Your task to perform on an android device: turn on sleep mode Image 0: 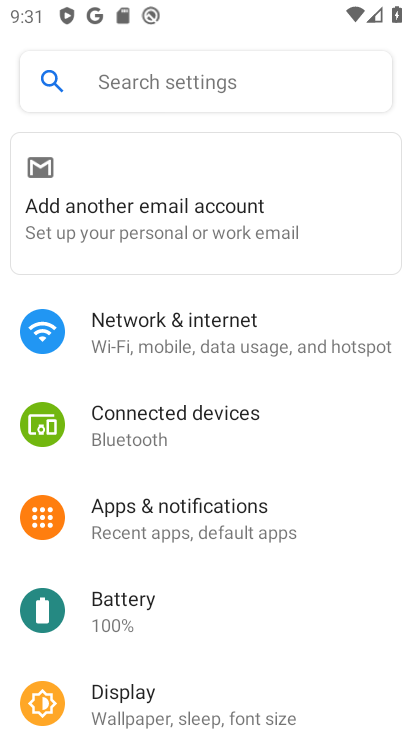
Step 0: drag from (224, 606) to (194, 275)
Your task to perform on an android device: turn on sleep mode Image 1: 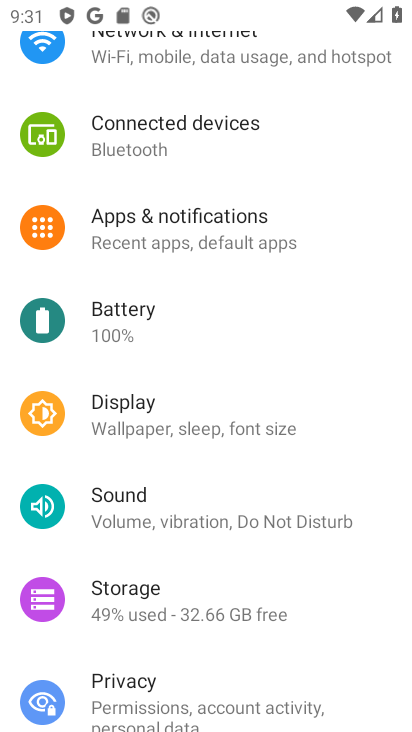
Step 1: click (200, 493)
Your task to perform on an android device: turn on sleep mode Image 2: 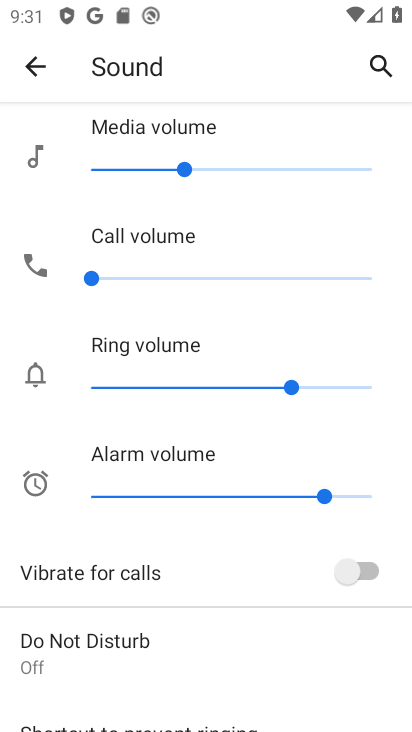
Step 2: press home button
Your task to perform on an android device: turn on sleep mode Image 3: 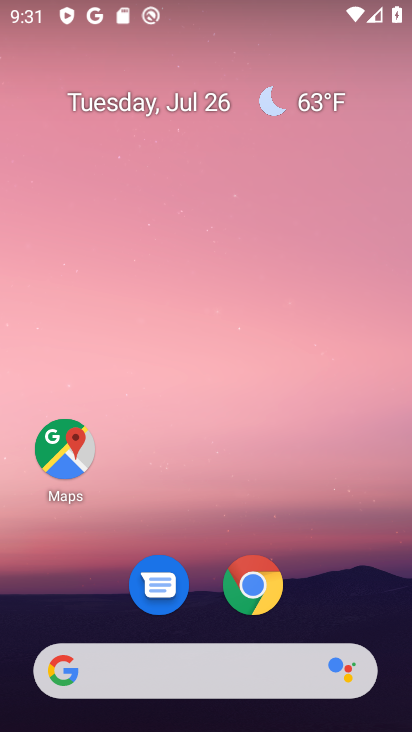
Step 3: drag from (330, 493) to (331, 56)
Your task to perform on an android device: turn on sleep mode Image 4: 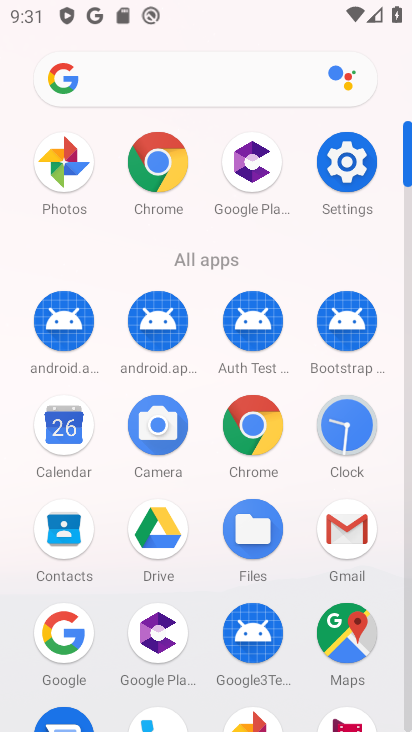
Step 4: click (339, 158)
Your task to perform on an android device: turn on sleep mode Image 5: 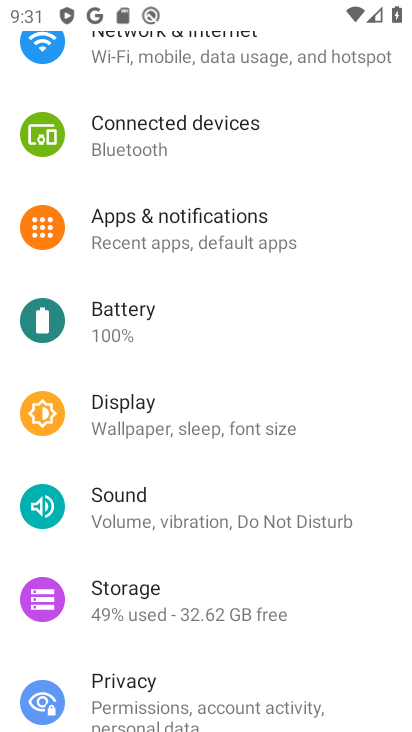
Step 5: drag from (186, 183) to (236, 522)
Your task to perform on an android device: turn on sleep mode Image 6: 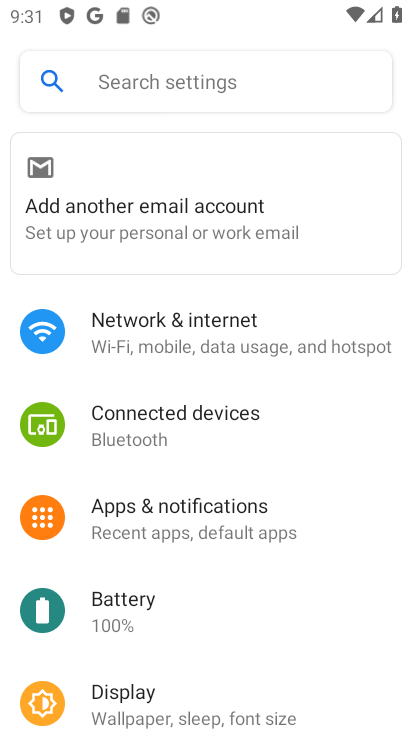
Step 6: click (225, 325)
Your task to perform on an android device: turn on sleep mode Image 7: 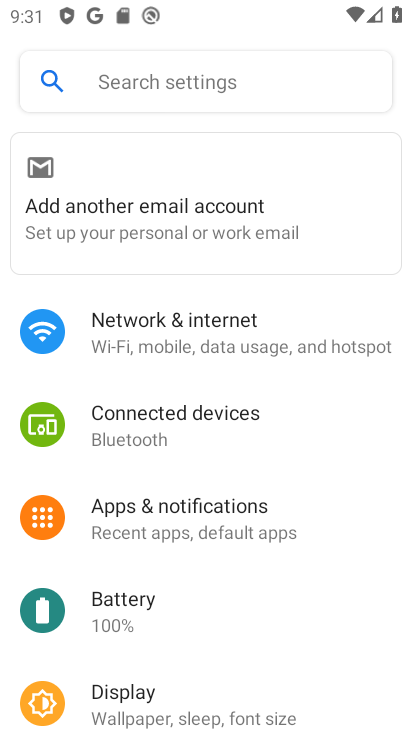
Step 7: click (225, 325)
Your task to perform on an android device: turn on sleep mode Image 8: 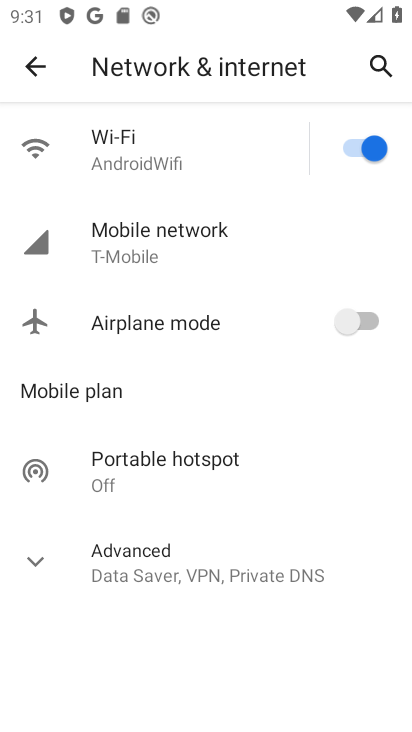
Step 8: click (23, 48)
Your task to perform on an android device: turn on sleep mode Image 9: 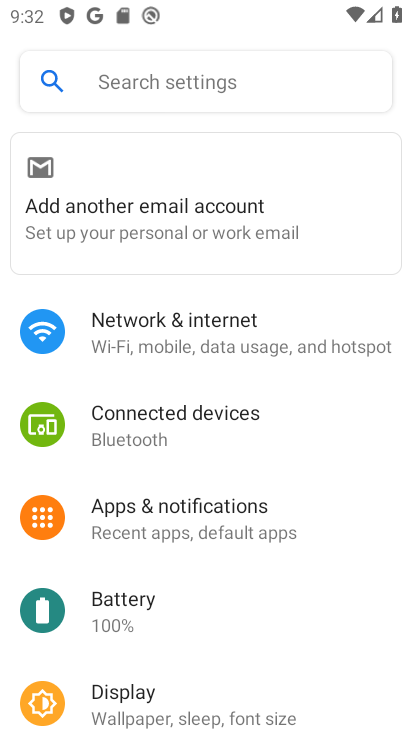
Step 9: drag from (238, 560) to (266, 223)
Your task to perform on an android device: turn on sleep mode Image 10: 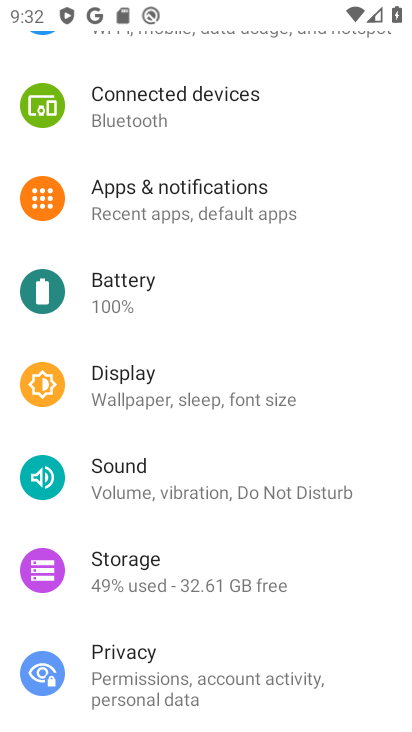
Step 10: click (238, 391)
Your task to perform on an android device: turn on sleep mode Image 11: 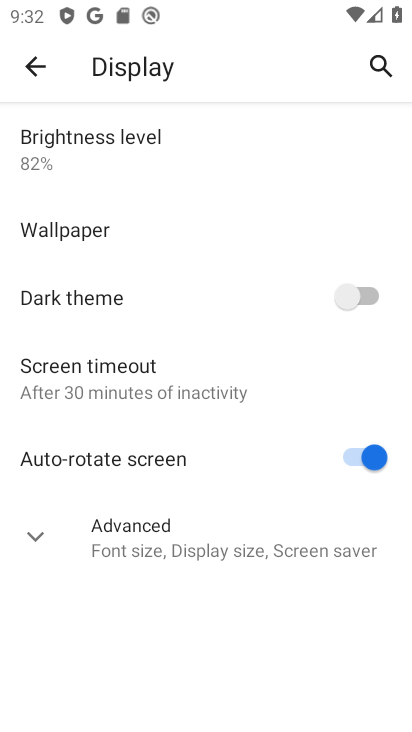
Step 11: click (33, 534)
Your task to perform on an android device: turn on sleep mode Image 12: 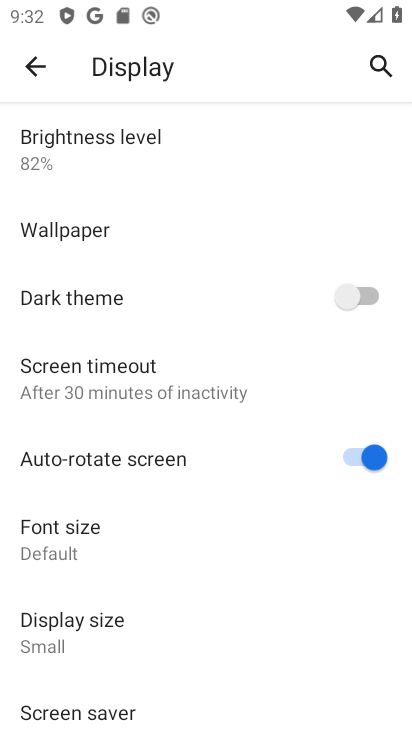
Step 12: task complete